Your task to perform on an android device: toggle location history Image 0: 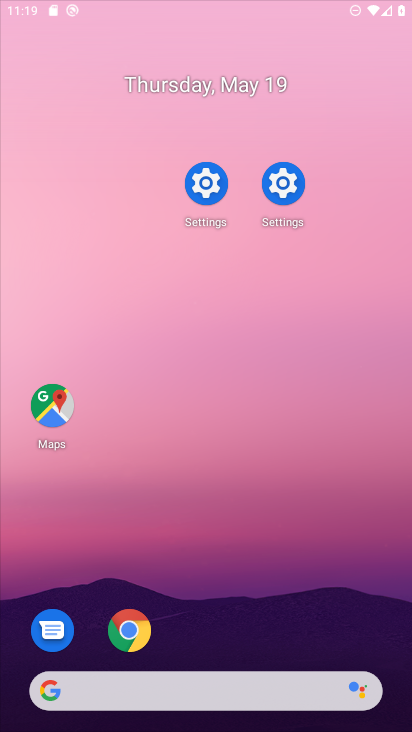
Step 0: drag from (250, 540) to (212, 208)
Your task to perform on an android device: toggle location history Image 1: 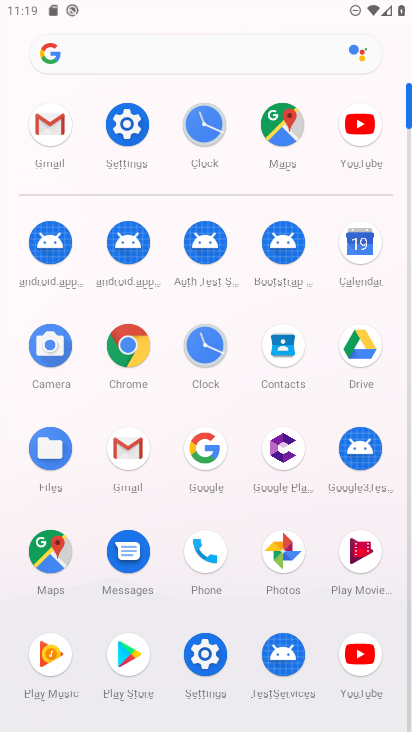
Step 1: click (100, 119)
Your task to perform on an android device: toggle location history Image 2: 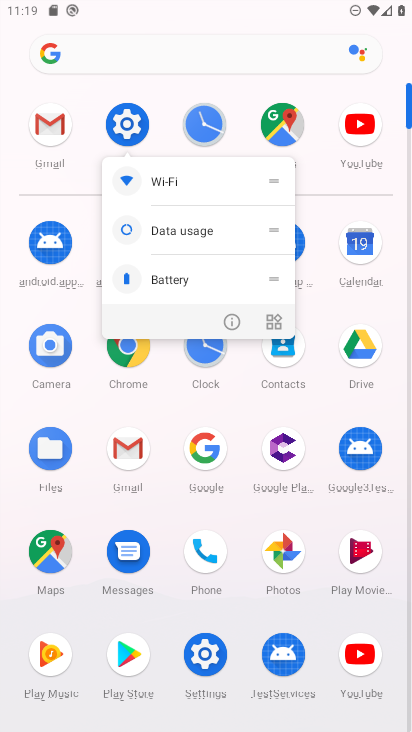
Step 2: click (130, 114)
Your task to perform on an android device: toggle location history Image 3: 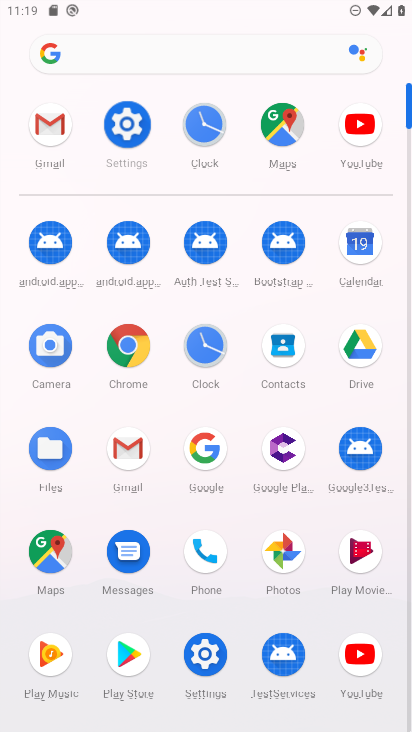
Step 3: click (130, 114)
Your task to perform on an android device: toggle location history Image 4: 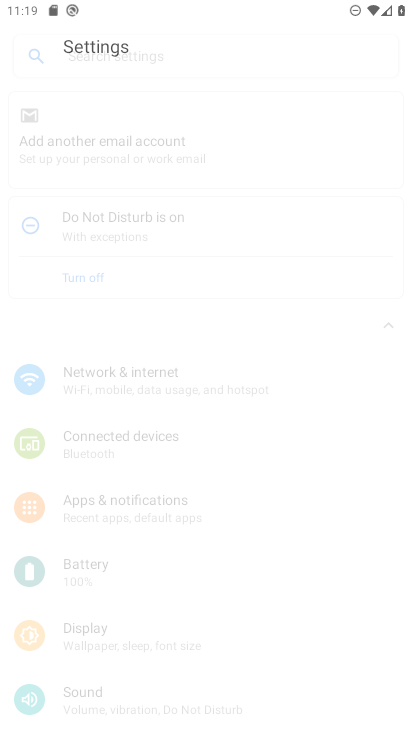
Step 4: click (129, 113)
Your task to perform on an android device: toggle location history Image 5: 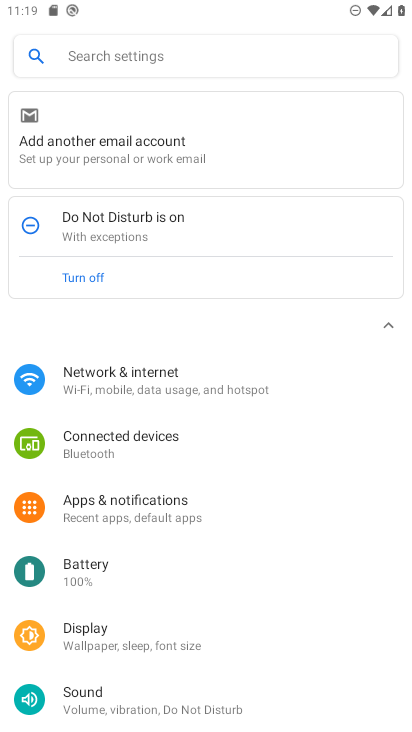
Step 5: drag from (165, 597) to (164, 242)
Your task to perform on an android device: toggle location history Image 6: 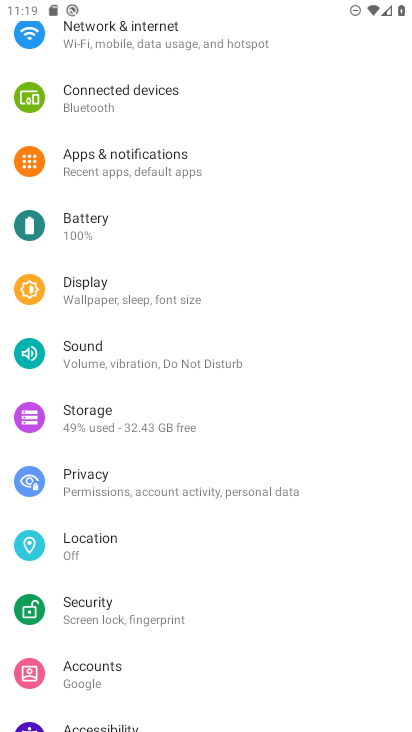
Step 6: drag from (177, 536) to (173, 197)
Your task to perform on an android device: toggle location history Image 7: 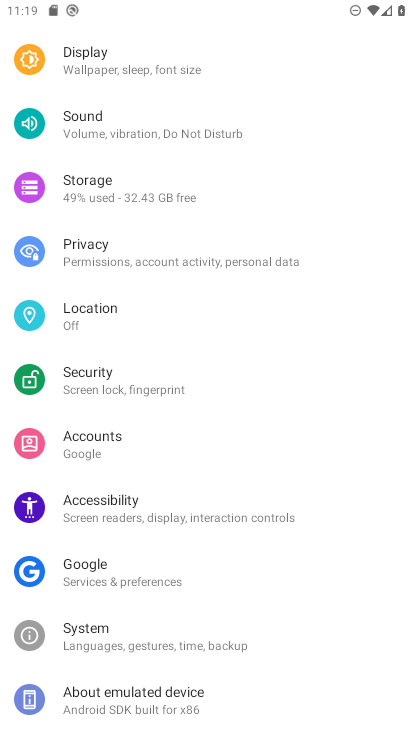
Step 7: click (63, 533)
Your task to perform on an android device: toggle location history Image 8: 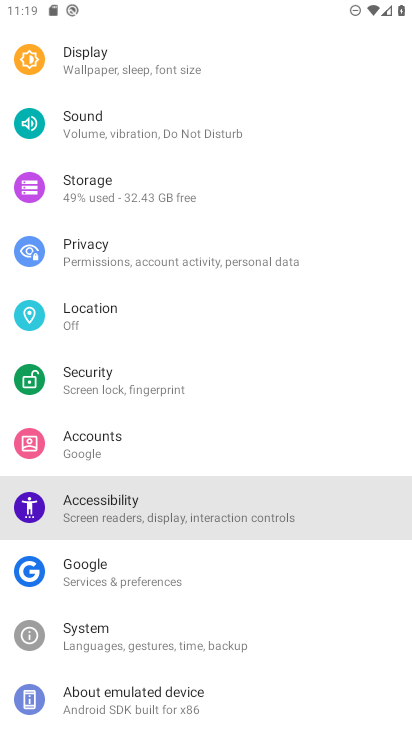
Step 8: click (76, 534)
Your task to perform on an android device: toggle location history Image 9: 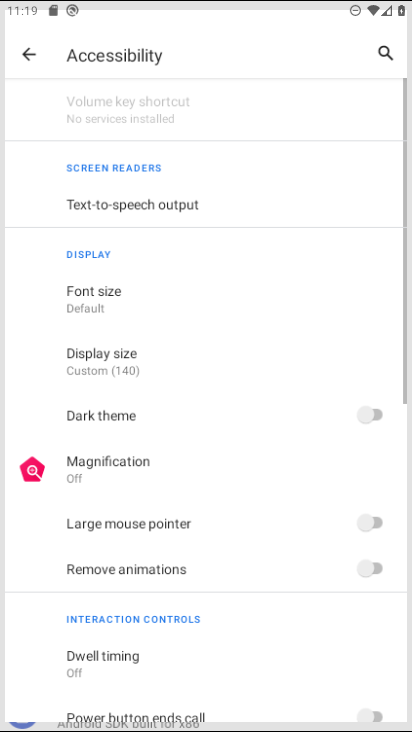
Step 9: click (79, 534)
Your task to perform on an android device: toggle location history Image 10: 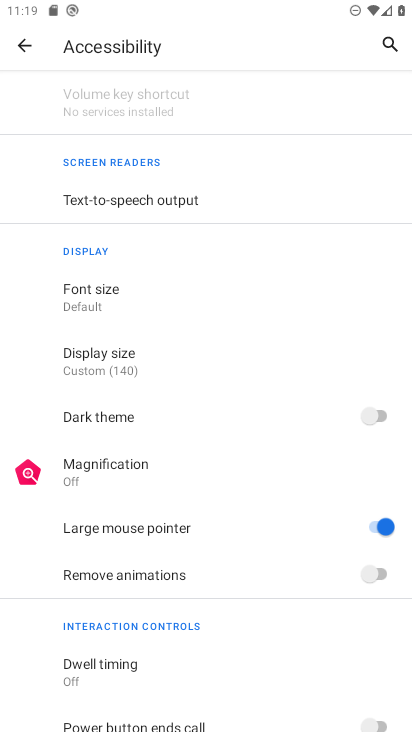
Step 10: click (13, 40)
Your task to perform on an android device: toggle location history Image 11: 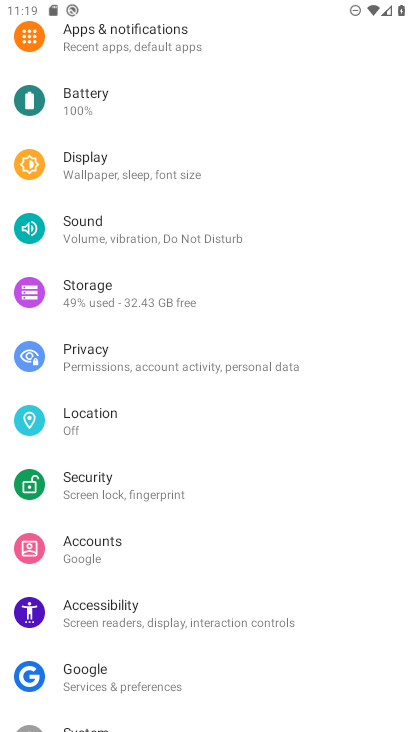
Step 11: click (94, 415)
Your task to perform on an android device: toggle location history Image 12: 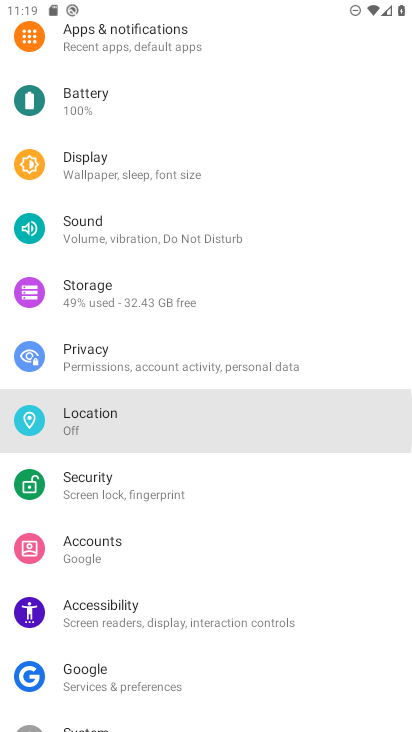
Step 12: click (89, 400)
Your task to perform on an android device: toggle location history Image 13: 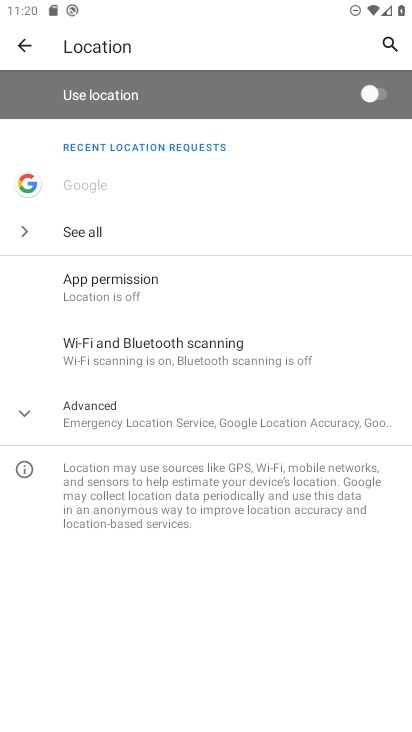
Step 13: click (106, 395)
Your task to perform on an android device: toggle location history Image 14: 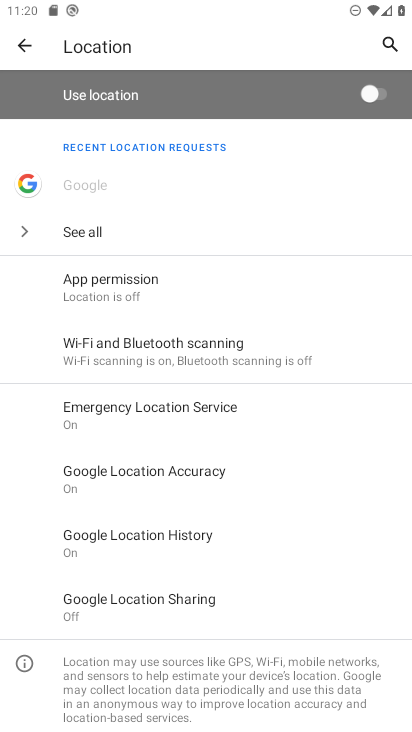
Step 14: click (138, 538)
Your task to perform on an android device: toggle location history Image 15: 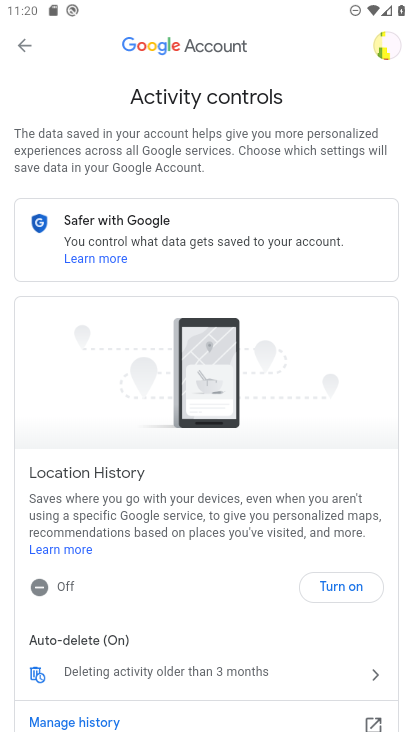
Step 15: drag from (235, 430) to (174, 65)
Your task to perform on an android device: toggle location history Image 16: 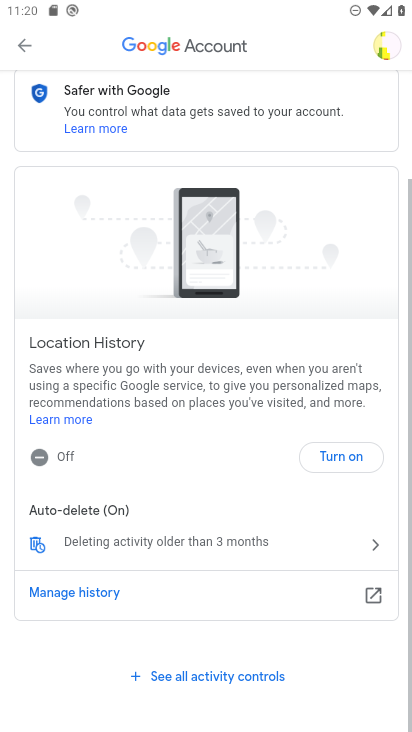
Step 16: drag from (249, 410) to (212, 18)
Your task to perform on an android device: toggle location history Image 17: 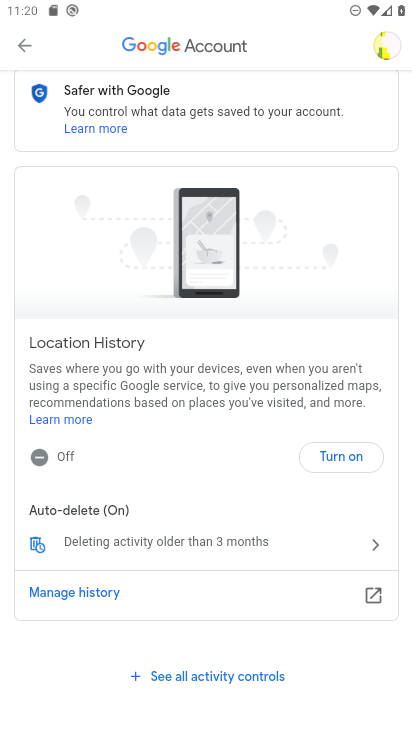
Step 17: drag from (218, 302) to (217, 7)
Your task to perform on an android device: toggle location history Image 18: 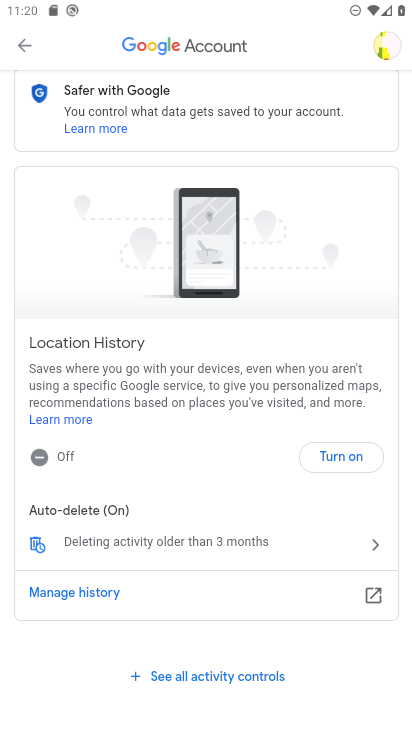
Step 18: drag from (252, 303) to (239, 29)
Your task to perform on an android device: toggle location history Image 19: 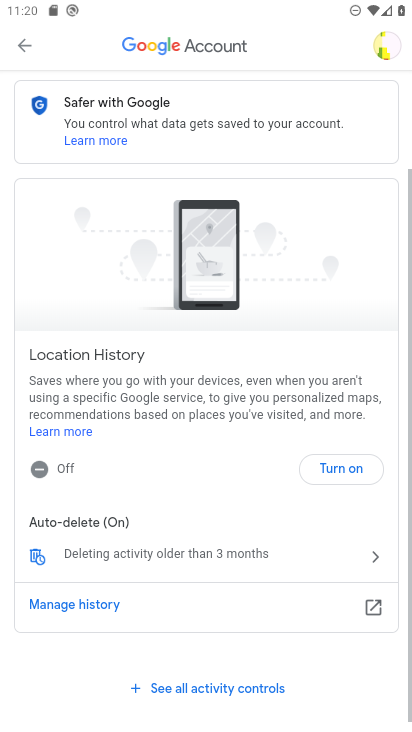
Step 19: drag from (250, 316) to (232, 93)
Your task to perform on an android device: toggle location history Image 20: 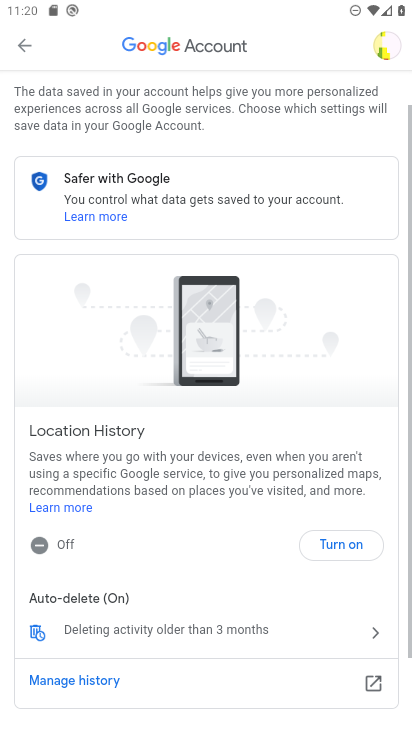
Step 20: drag from (249, 454) to (160, 52)
Your task to perform on an android device: toggle location history Image 21: 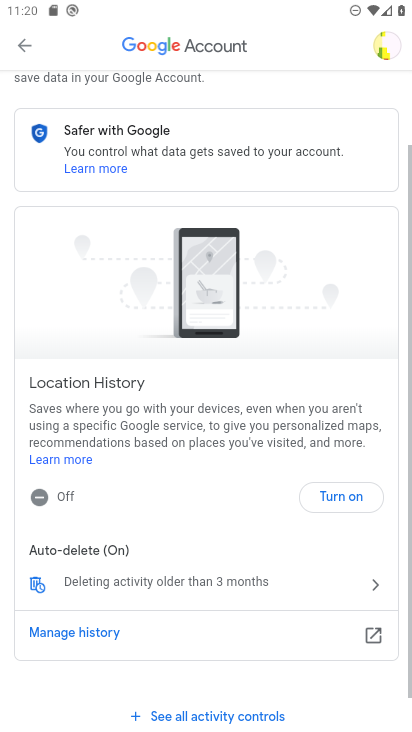
Step 21: drag from (193, 449) to (189, 169)
Your task to perform on an android device: toggle location history Image 22: 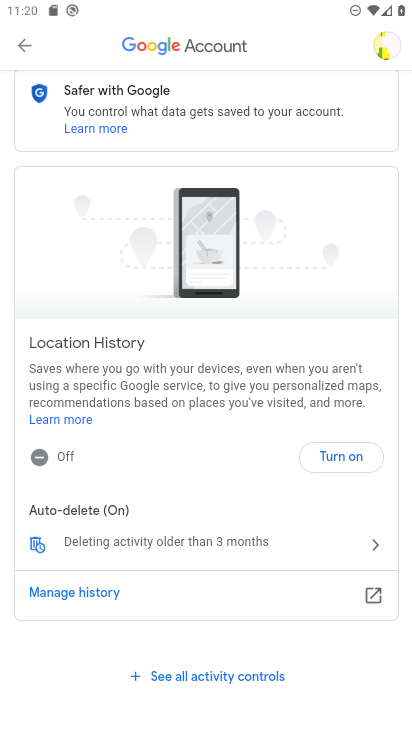
Step 22: click (341, 451)
Your task to perform on an android device: toggle location history Image 23: 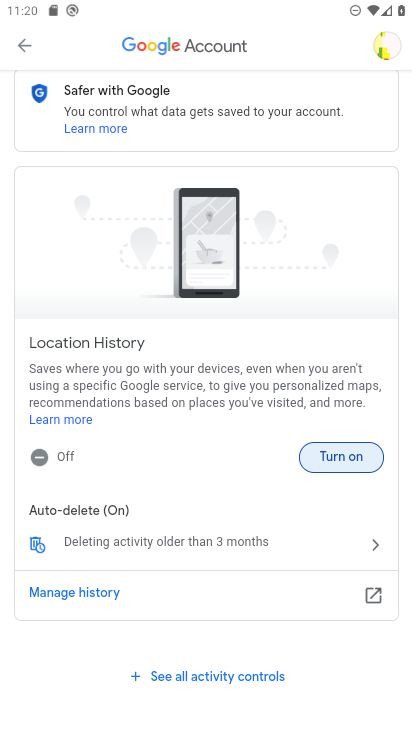
Step 23: task complete